Your task to perform on an android device: toggle notification dots Image 0: 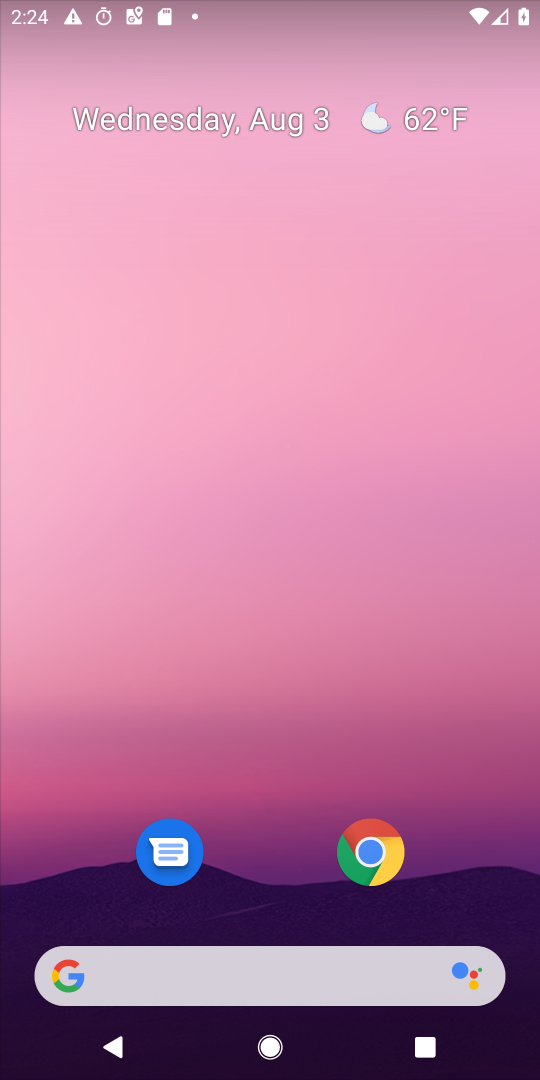
Step 0: drag from (480, 875) to (207, 103)
Your task to perform on an android device: toggle notification dots Image 1: 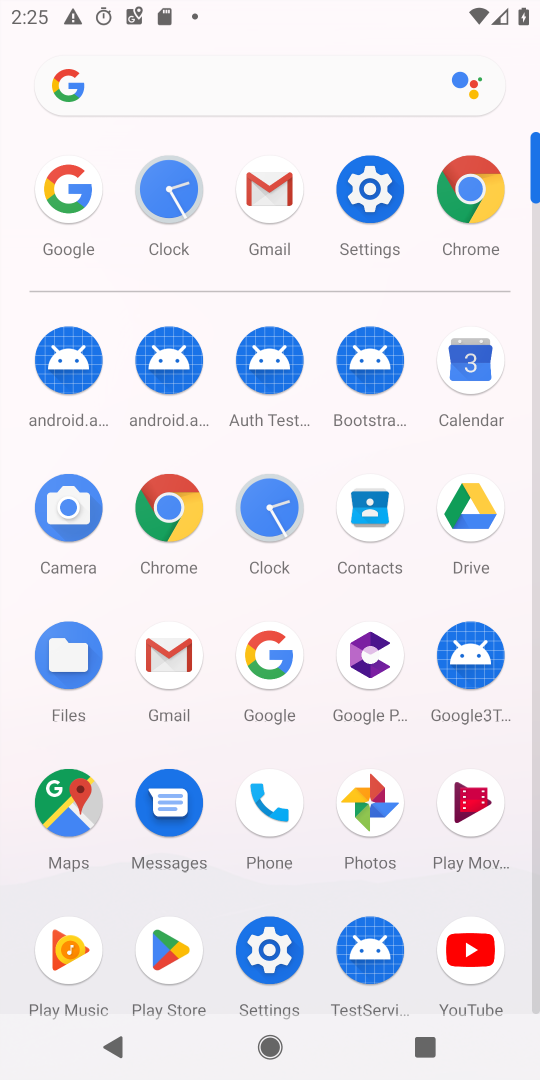
Step 1: click (281, 952)
Your task to perform on an android device: toggle notification dots Image 2: 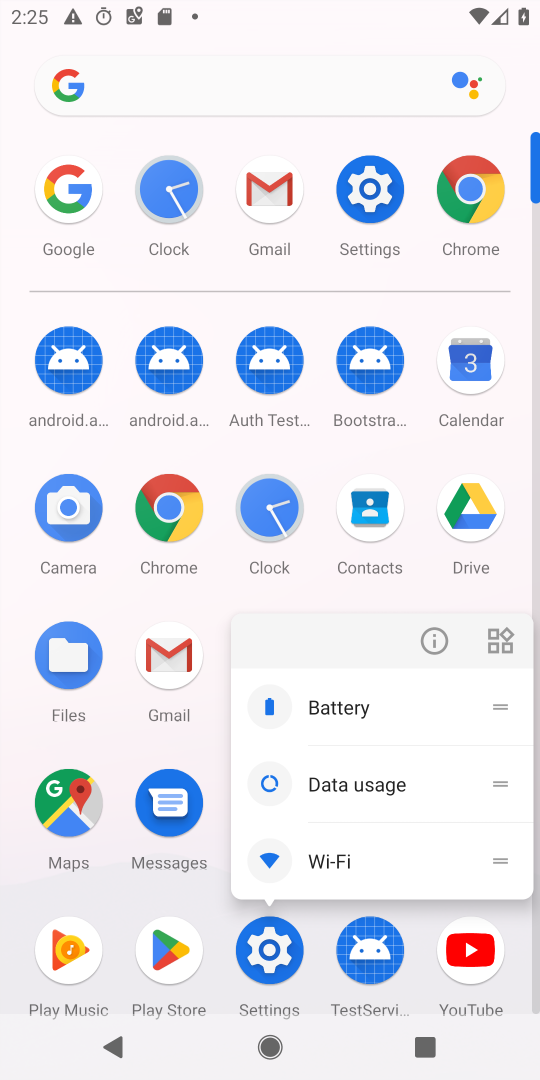
Step 2: click (270, 938)
Your task to perform on an android device: toggle notification dots Image 3: 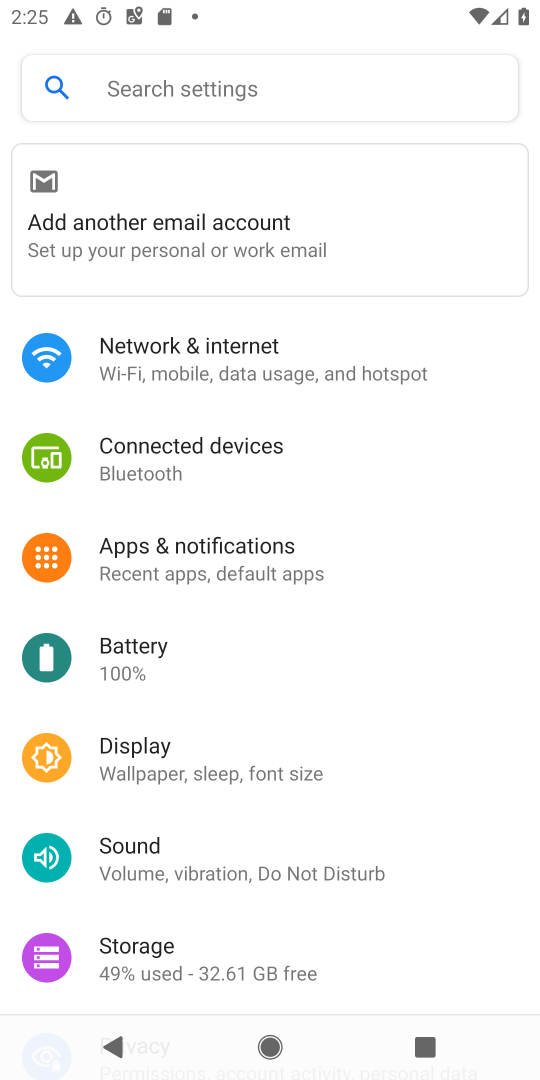
Step 3: click (259, 551)
Your task to perform on an android device: toggle notification dots Image 4: 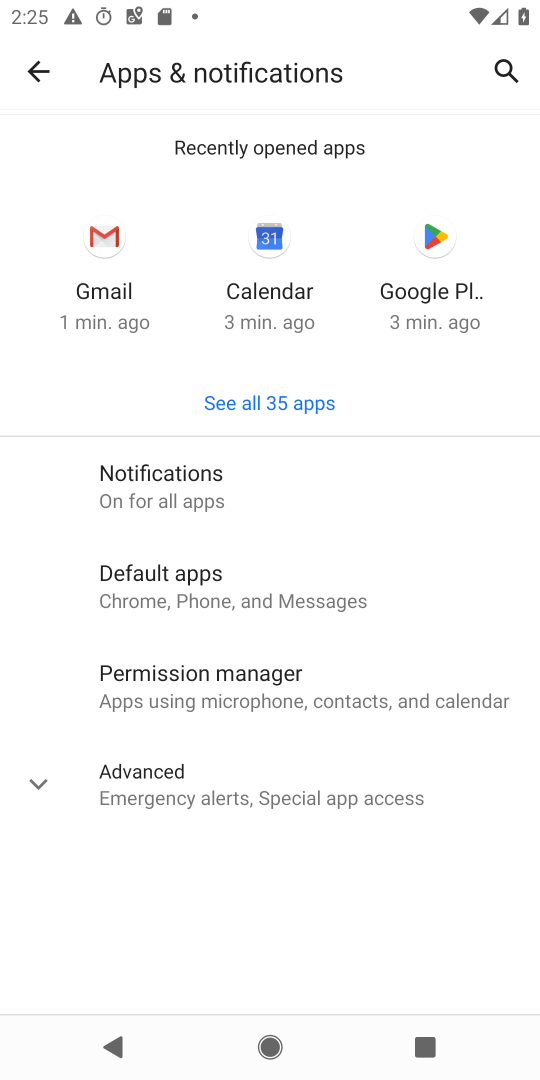
Step 4: click (119, 481)
Your task to perform on an android device: toggle notification dots Image 5: 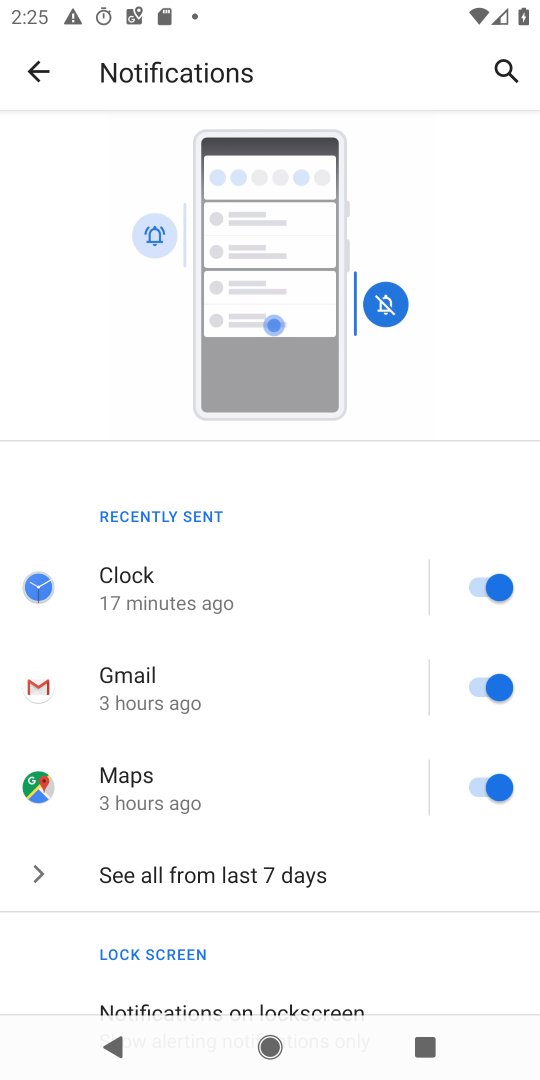
Step 5: drag from (268, 978) to (157, 182)
Your task to perform on an android device: toggle notification dots Image 6: 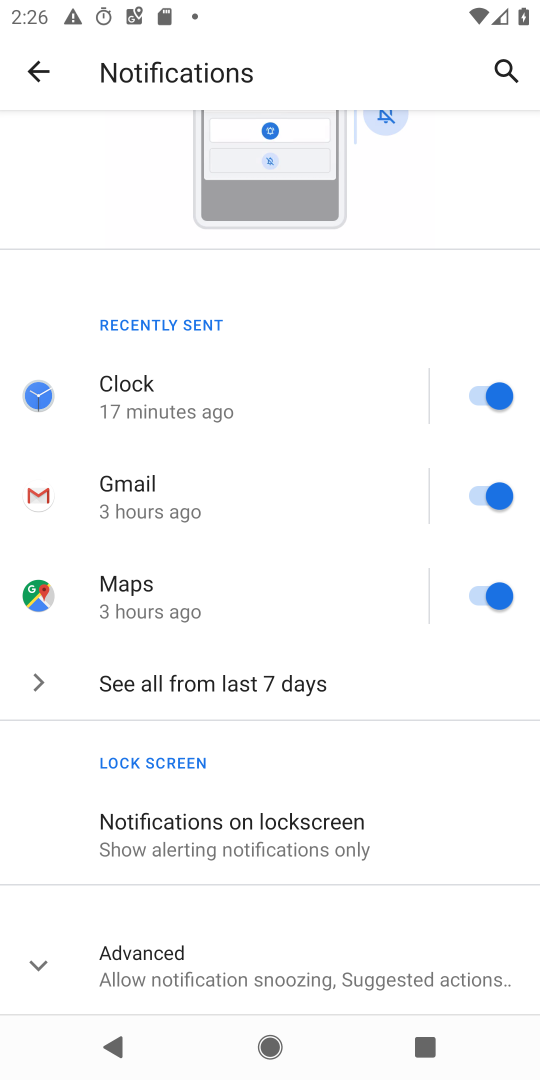
Step 6: click (97, 968)
Your task to perform on an android device: toggle notification dots Image 7: 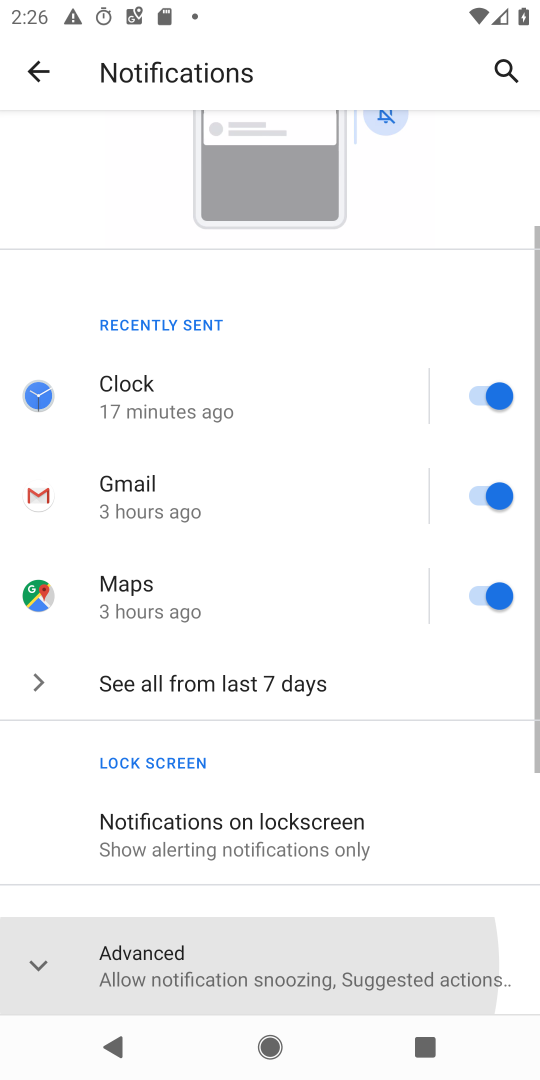
Step 7: drag from (286, 858) to (276, 208)
Your task to perform on an android device: toggle notification dots Image 8: 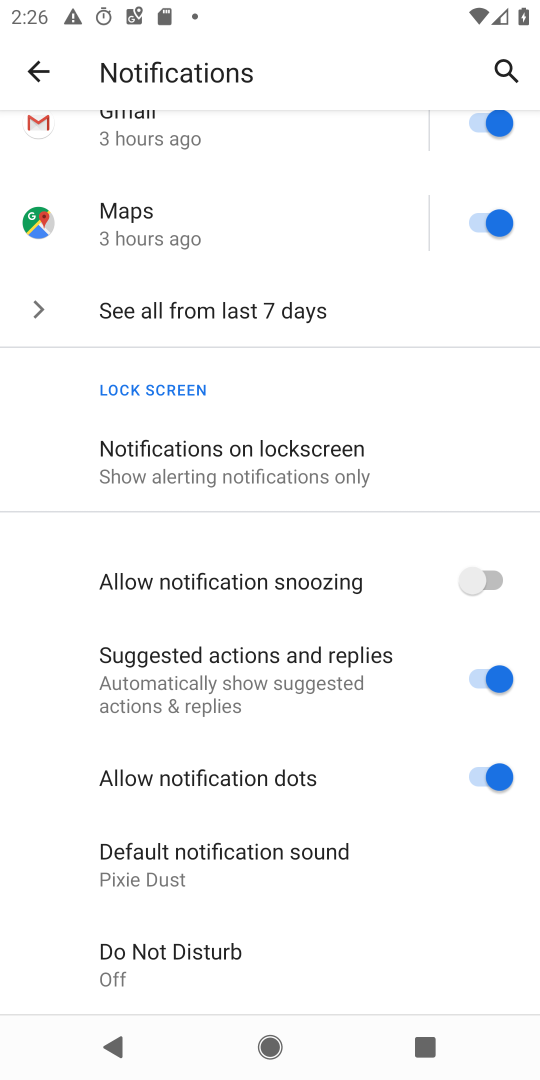
Step 8: click (393, 778)
Your task to perform on an android device: toggle notification dots Image 9: 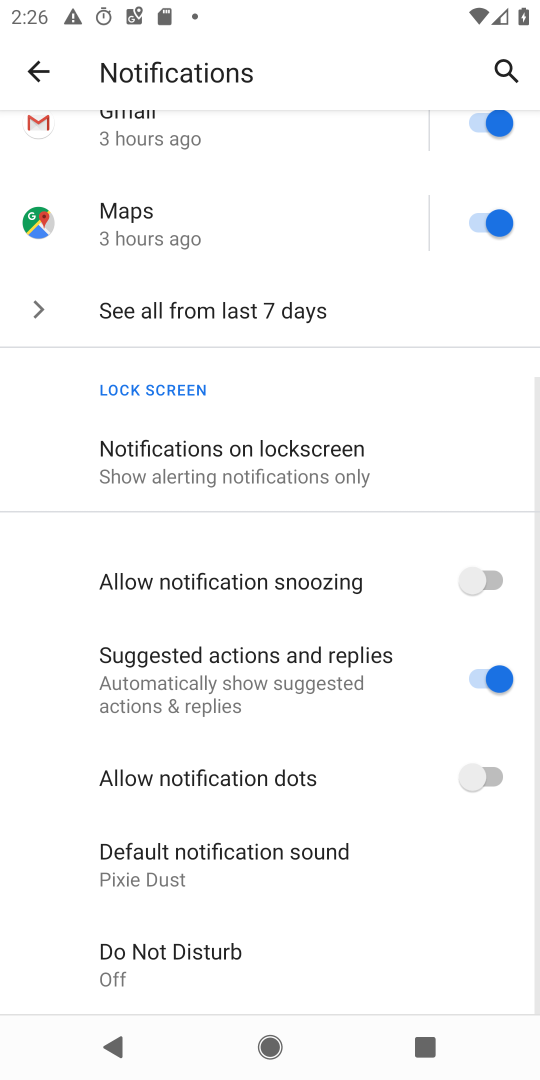
Step 9: task complete